Your task to perform on an android device: check storage Image 0: 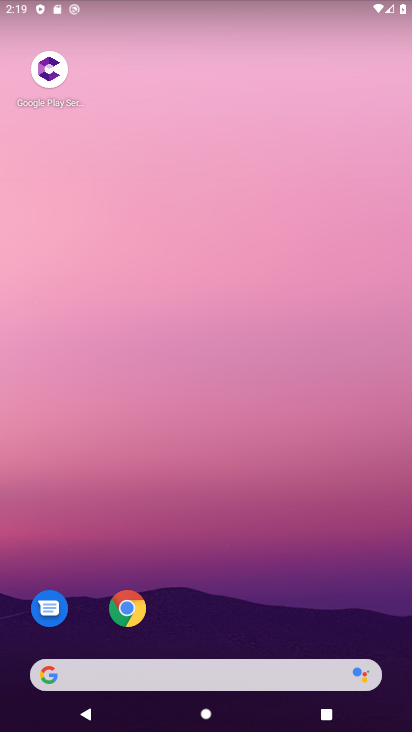
Step 0: drag from (194, 615) to (79, 35)
Your task to perform on an android device: check storage Image 1: 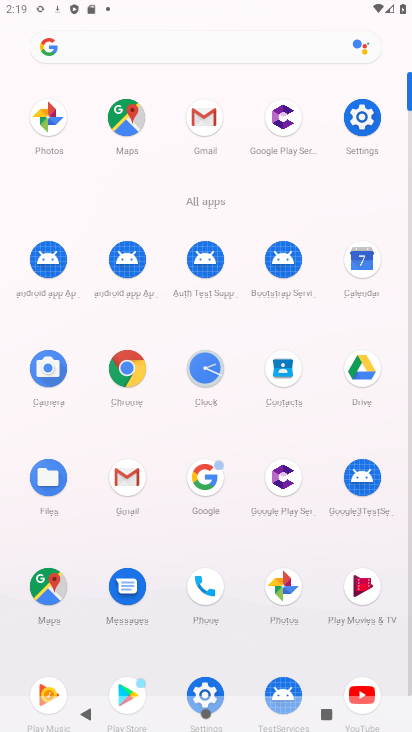
Step 1: click (368, 112)
Your task to perform on an android device: check storage Image 2: 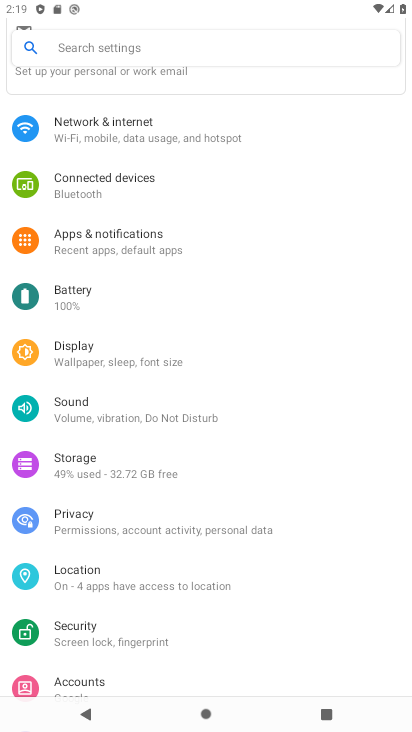
Step 2: click (104, 472)
Your task to perform on an android device: check storage Image 3: 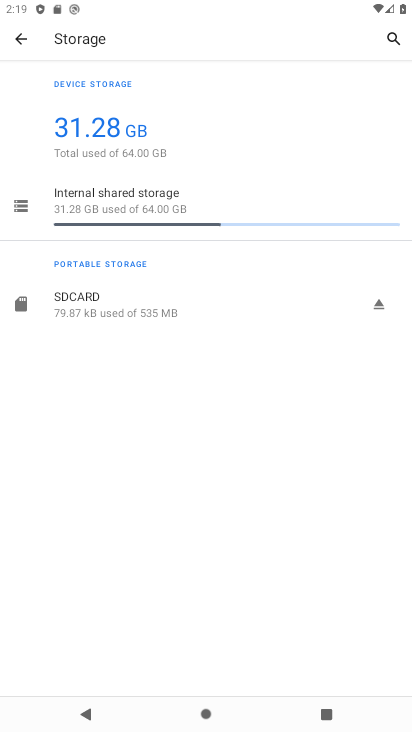
Step 3: task complete